Your task to perform on an android device: turn off location Image 0: 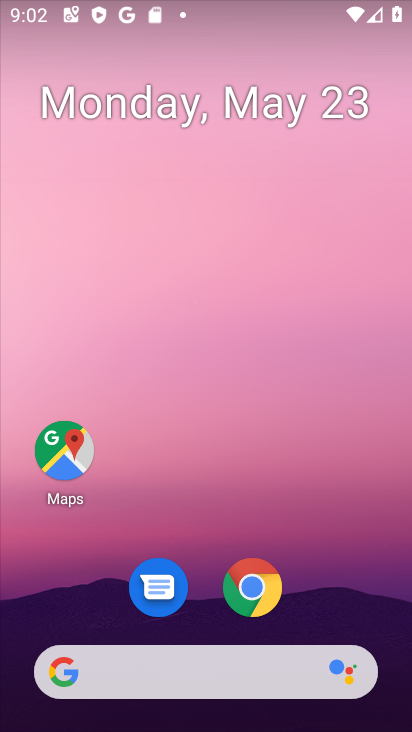
Step 0: drag from (199, 526) to (286, 61)
Your task to perform on an android device: turn off location Image 1: 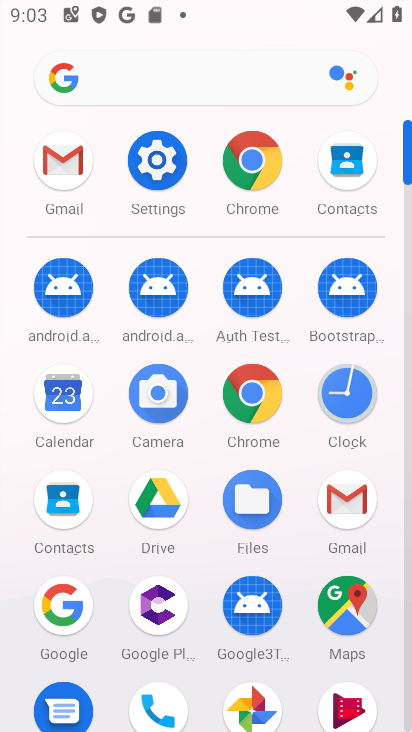
Step 1: click (146, 142)
Your task to perform on an android device: turn off location Image 2: 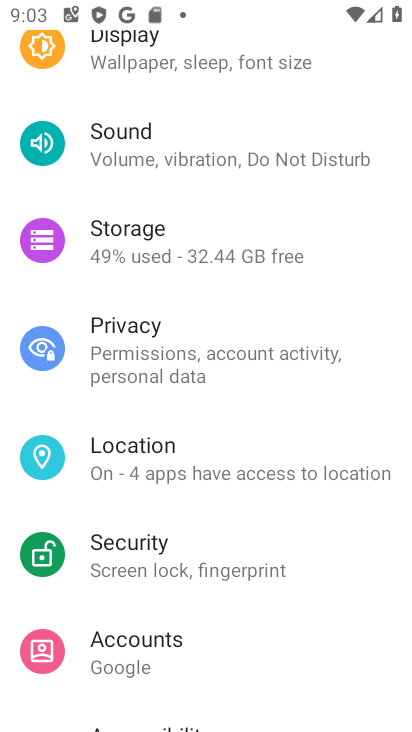
Step 2: click (127, 460)
Your task to perform on an android device: turn off location Image 3: 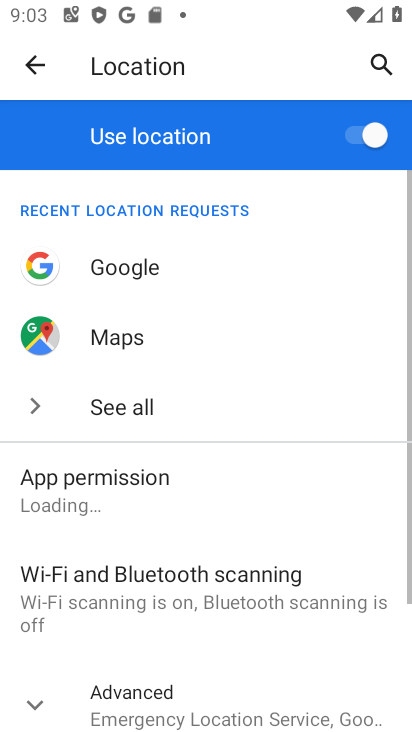
Step 3: click (350, 130)
Your task to perform on an android device: turn off location Image 4: 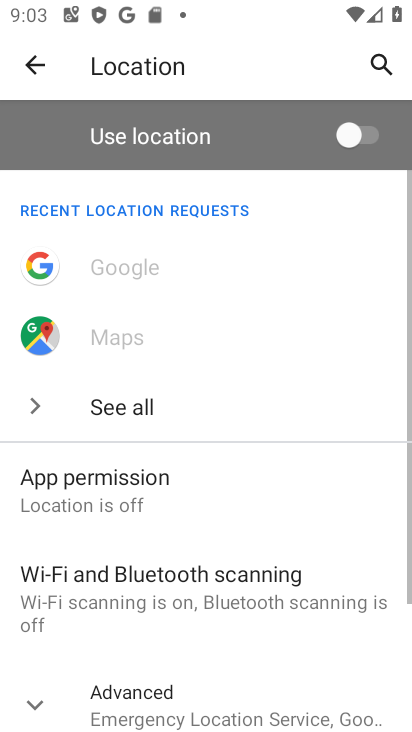
Step 4: task complete